Your task to perform on an android device: turn on sleep mode Image 0: 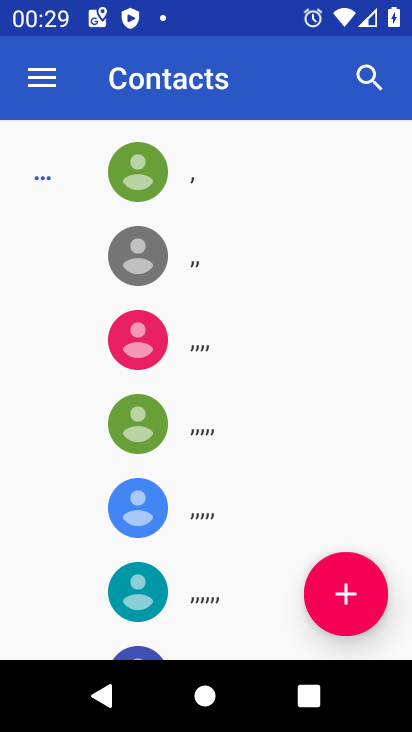
Step 0: press home button
Your task to perform on an android device: turn on sleep mode Image 1: 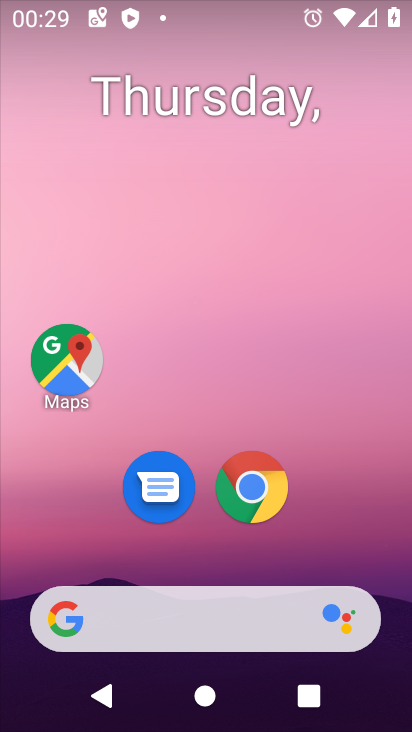
Step 1: drag from (370, 535) to (293, 1)
Your task to perform on an android device: turn on sleep mode Image 2: 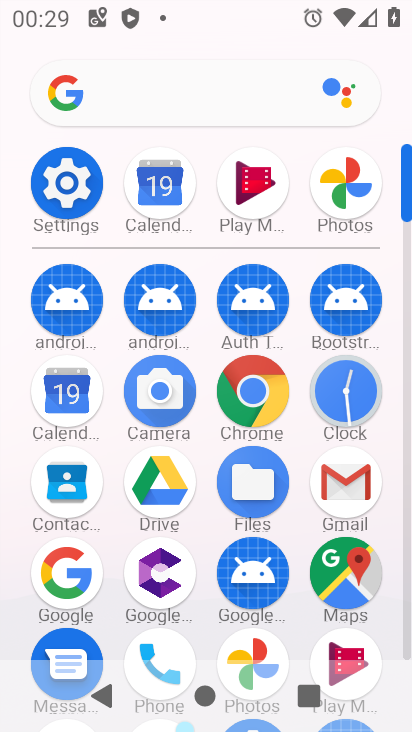
Step 2: click (70, 199)
Your task to perform on an android device: turn on sleep mode Image 3: 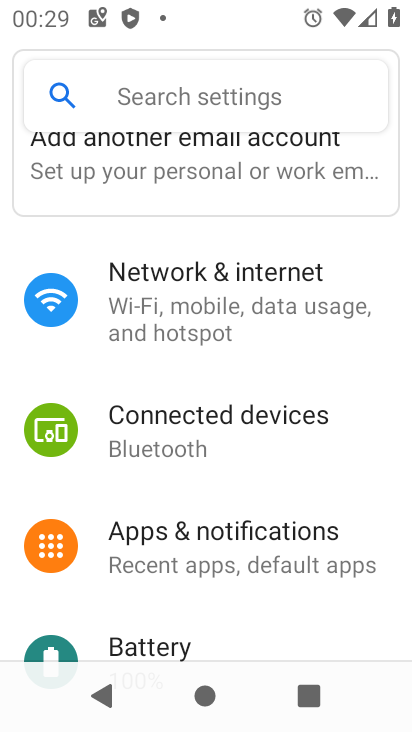
Step 3: drag from (209, 479) to (169, 202)
Your task to perform on an android device: turn on sleep mode Image 4: 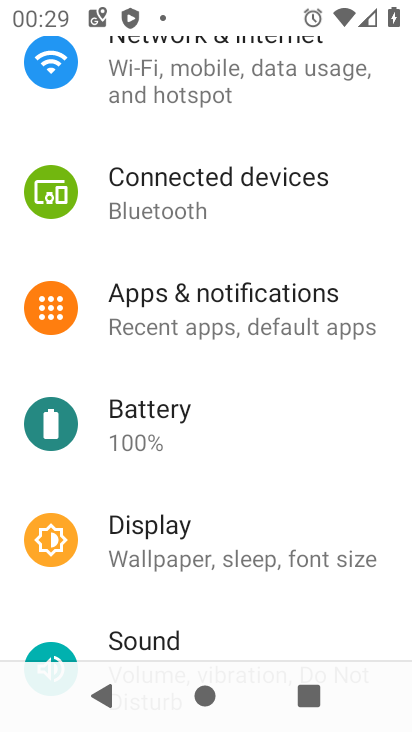
Step 4: click (148, 543)
Your task to perform on an android device: turn on sleep mode Image 5: 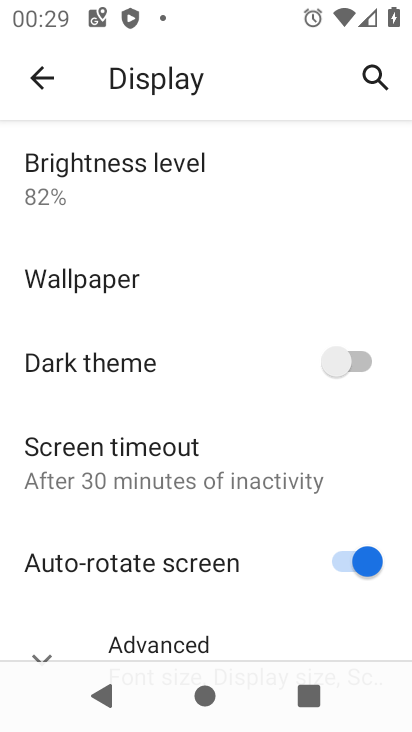
Step 5: drag from (148, 538) to (128, 225)
Your task to perform on an android device: turn on sleep mode Image 6: 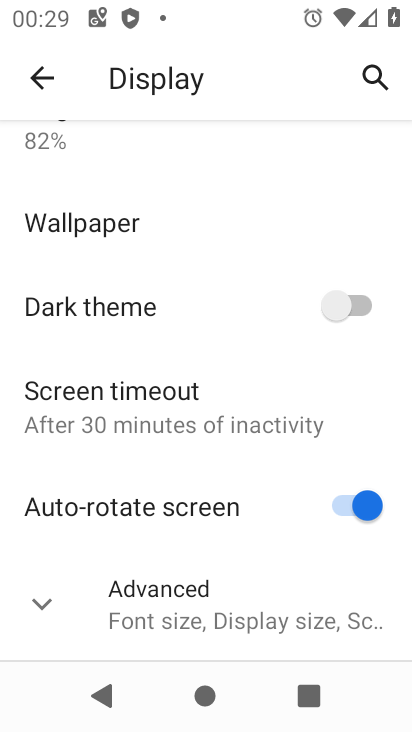
Step 6: click (33, 614)
Your task to perform on an android device: turn on sleep mode Image 7: 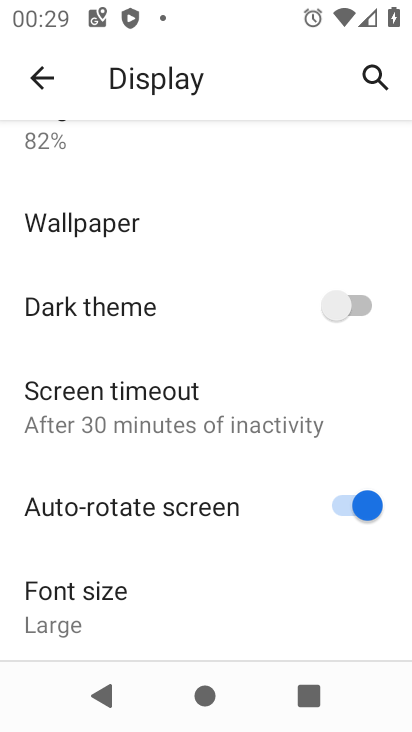
Step 7: task complete